Your task to perform on an android device: Show me the alarms in the clock app Image 0: 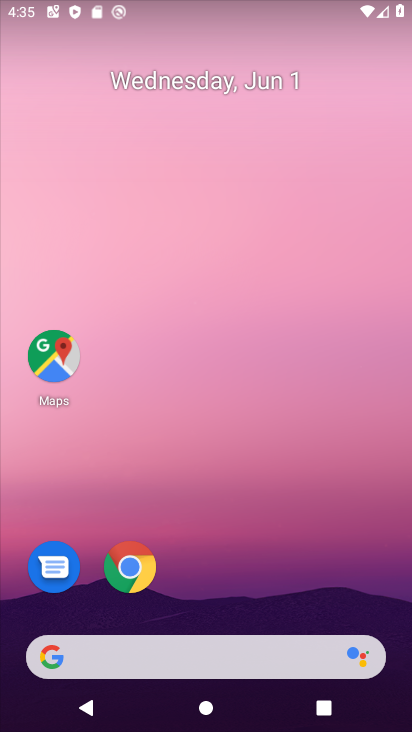
Step 0: drag from (160, 726) to (211, 65)
Your task to perform on an android device: Show me the alarms in the clock app Image 1: 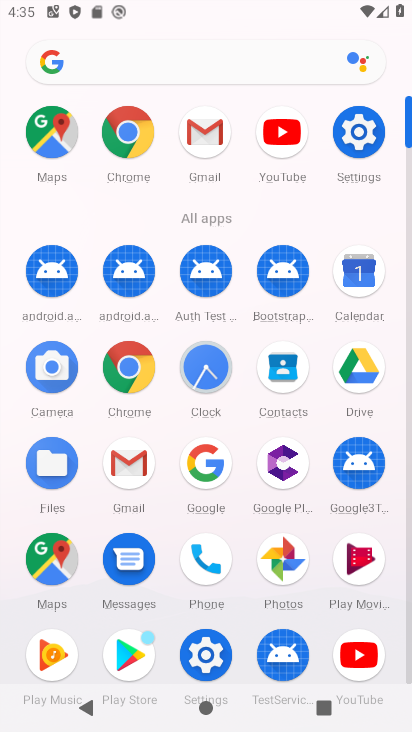
Step 1: click (192, 366)
Your task to perform on an android device: Show me the alarms in the clock app Image 2: 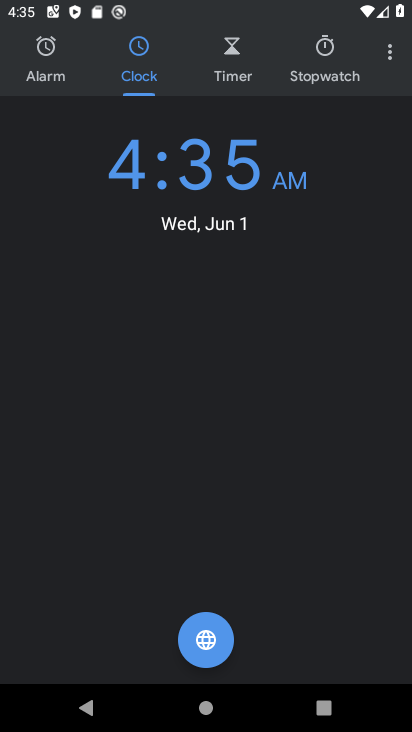
Step 2: click (50, 66)
Your task to perform on an android device: Show me the alarms in the clock app Image 3: 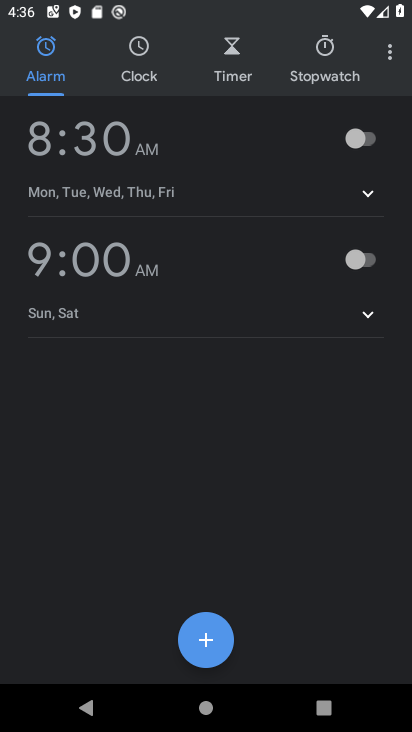
Step 3: task complete